Your task to perform on an android device: check storage Image 0: 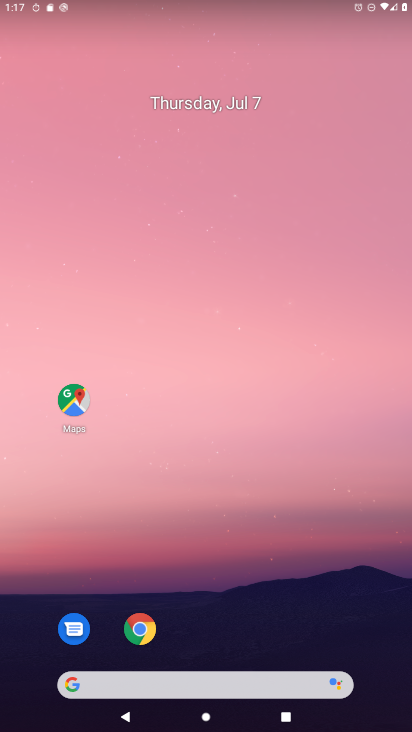
Step 0: click (264, 143)
Your task to perform on an android device: check storage Image 1: 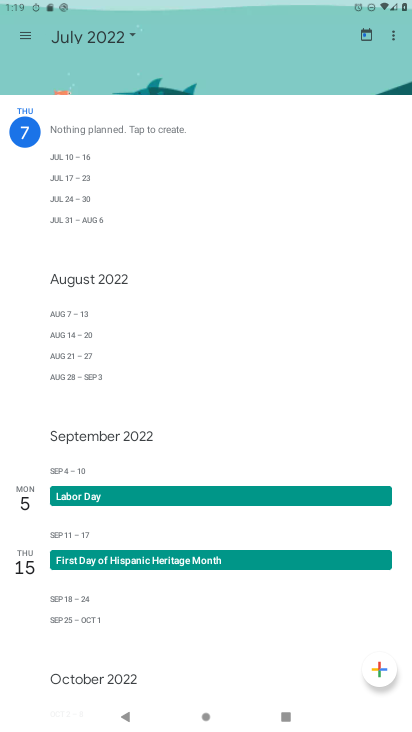
Step 1: press home button
Your task to perform on an android device: check storage Image 2: 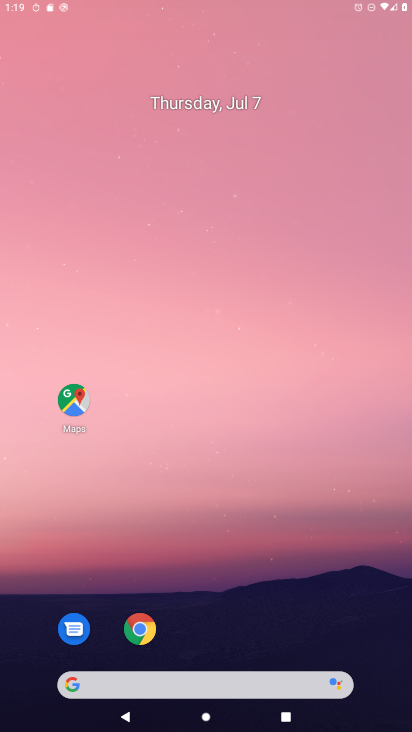
Step 2: drag from (219, 593) to (215, 53)
Your task to perform on an android device: check storage Image 3: 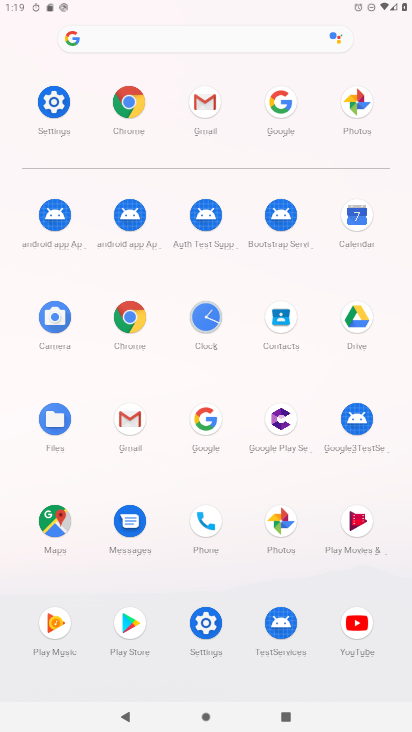
Step 3: click (66, 104)
Your task to perform on an android device: check storage Image 4: 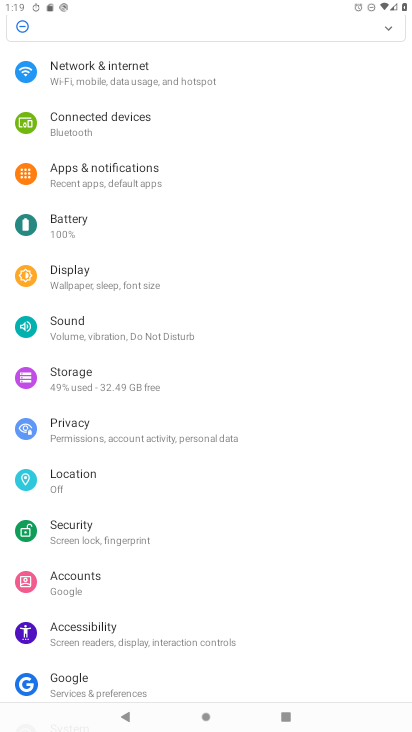
Step 4: drag from (117, 643) to (156, 209)
Your task to perform on an android device: check storage Image 5: 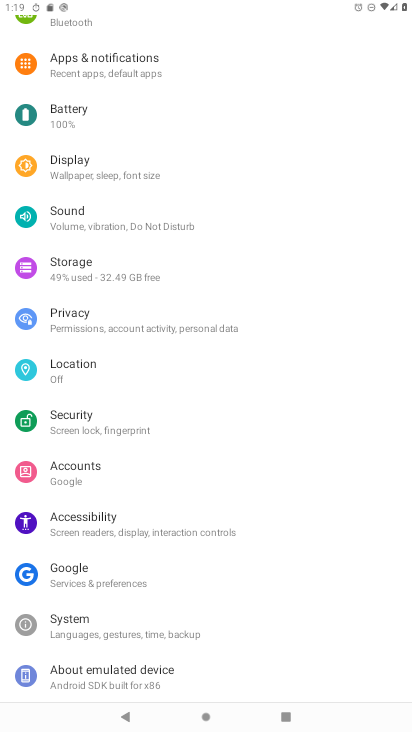
Step 5: click (117, 276)
Your task to perform on an android device: check storage Image 6: 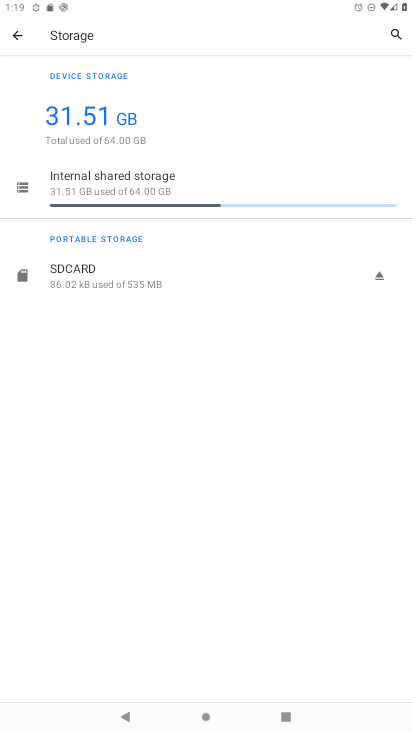
Step 6: click (140, 198)
Your task to perform on an android device: check storage Image 7: 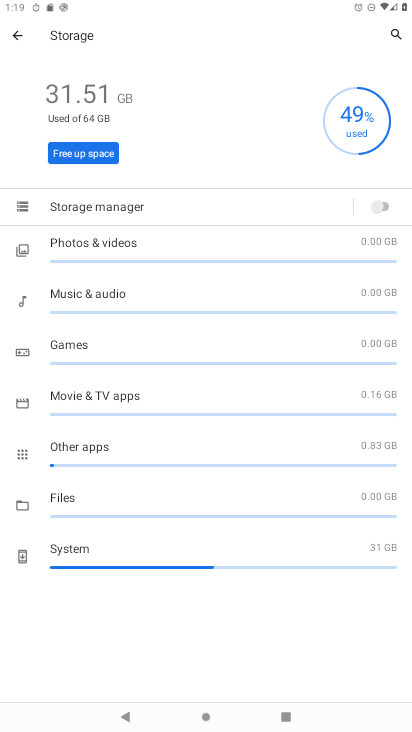
Step 7: task complete